Your task to perform on an android device: visit the assistant section in the google photos Image 0: 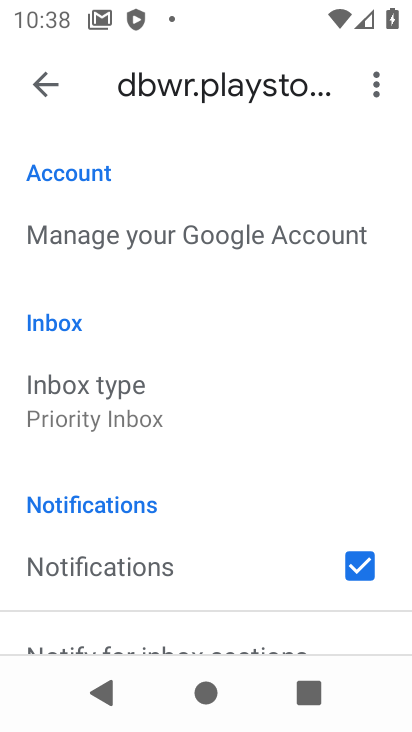
Step 0: press home button
Your task to perform on an android device: visit the assistant section in the google photos Image 1: 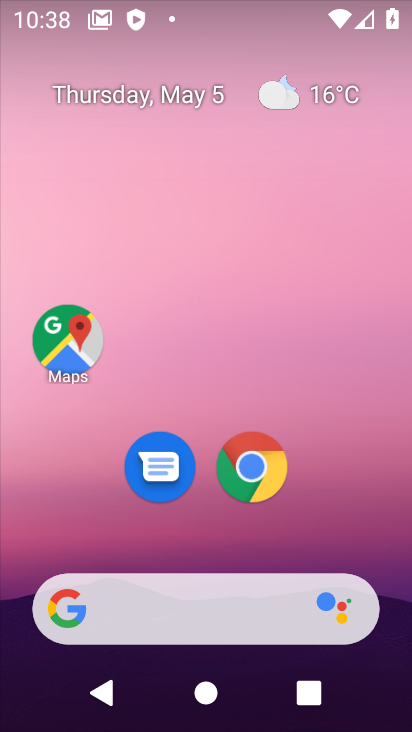
Step 1: drag from (206, 511) to (242, 33)
Your task to perform on an android device: visit the assistant section in the google photos Image 2: 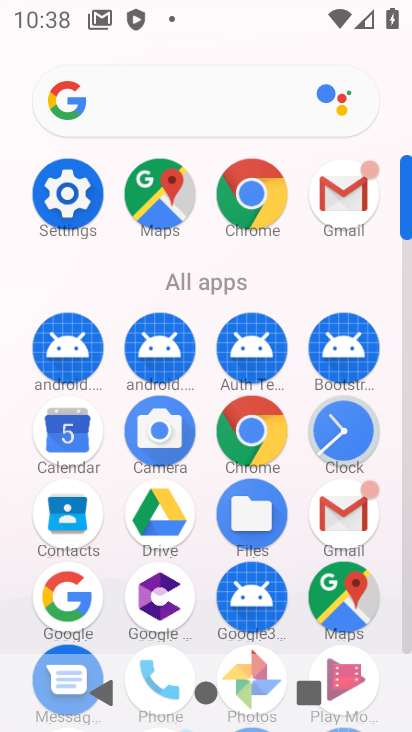
Step 2: drag from (201, 631) to (214, 457)
Your task to perform on an android device: visit the assistant section in the google photos Image 3: 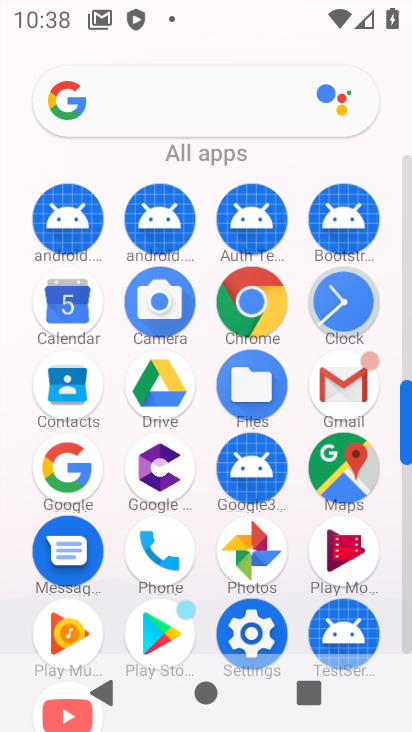
Step 3: click (246, 544)
Your task to perform on an android device: visit the assistant section in the google photos Image 4: 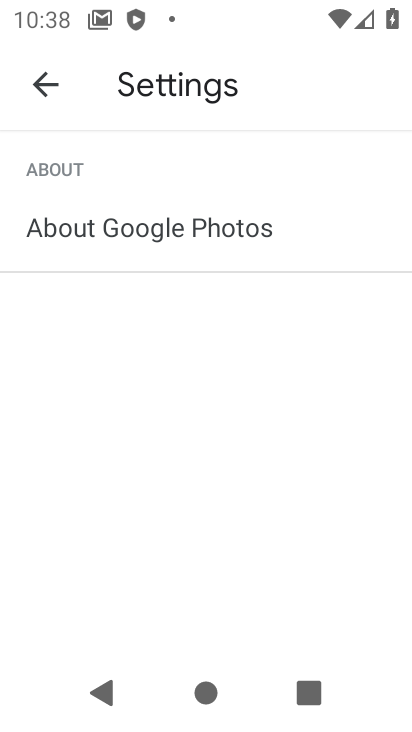
Step 4: drag from (260, 514) to (86, 130)
Your task to perform on an android device: visit the assistant section in the google photos Image 5: 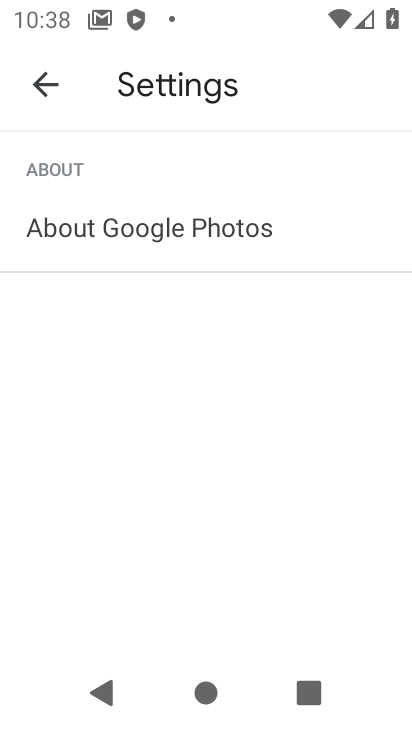
Step 5: click (39, 98)
Your task to perform on an android device: visit the assistant section in the google photos Image 6: 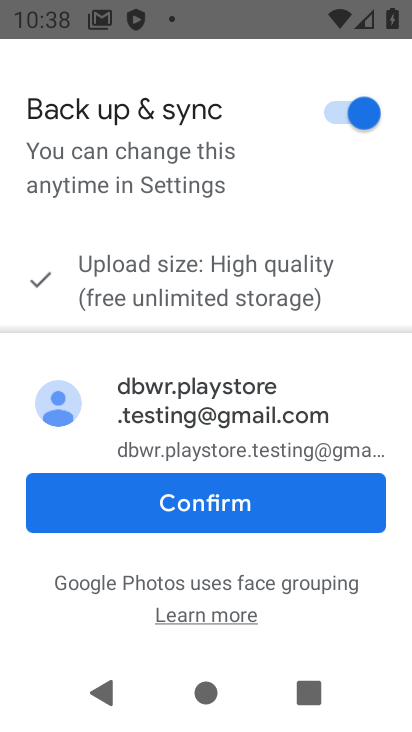
Step 6: click (221, 500)
Your task to perform on an android device: visit the assistant section in the google photos Image 7: 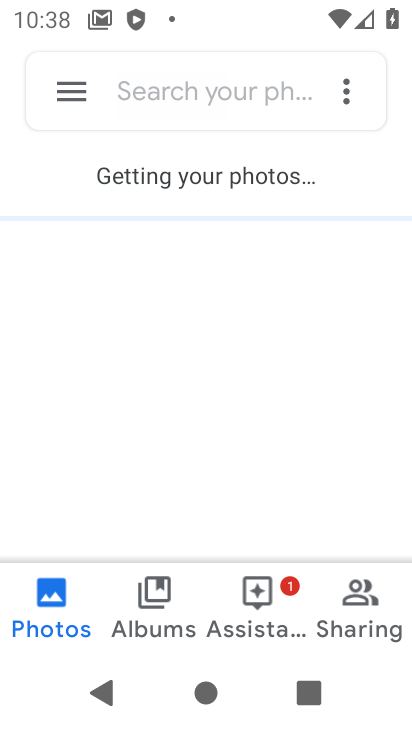
Step 7: click (256, 608)
Your task to perform on an android device: visit the assistant section in the google photos Image 8: 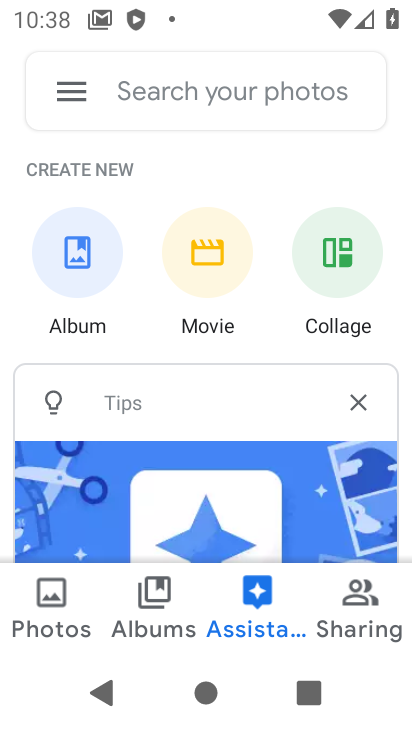
Step 8: task complete